Your task to perform on an android device: Clear the shopping cart on target. Add razer kraken to the cart on target, then select checkout. Image 0: 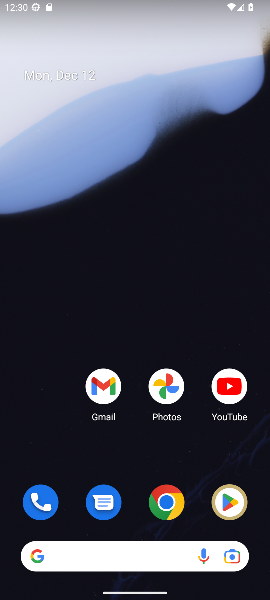
Step 0: click (172, 515)
Your task to perform on an android device: Clear the shopping cart on target. Add razer kraken to the cart on target, then select checkout. Image 1: 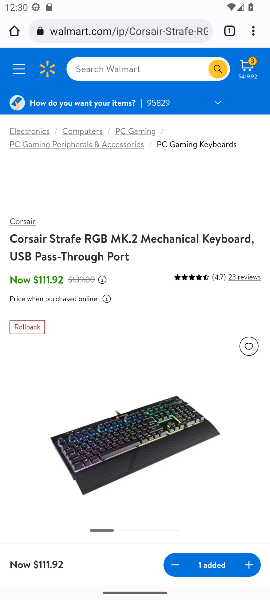
Step 1: click (150, 40)
Your task to perform on an android device: Clear the shopping cart on target. Add razer kraken to the cart on target, then select checkout. Image 2: 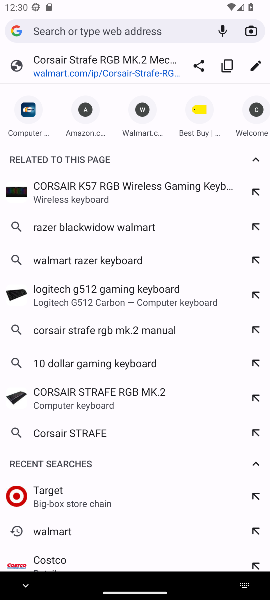
Step 2: type "target"
Your task to perform on an android device: Clear the shopping cart on target. Add razer kraken to the cart on target, then select checkout. Image 3: 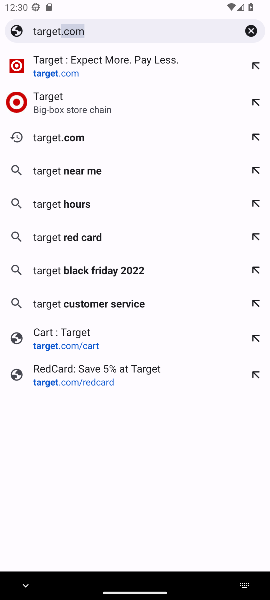
Step 3: click (152, 71)
Your task to perform on an android device: Clear the shopping cart on target. Add razer kraken to the cart on target, then select checkout. Image 4: 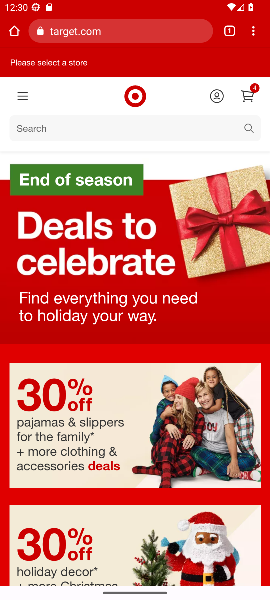
Step 4: click (163, 136)
Your task to perform on an android device: Clear the shopping cart on target. Add razer kraken to the cart on target, then select checkout. Image 5: 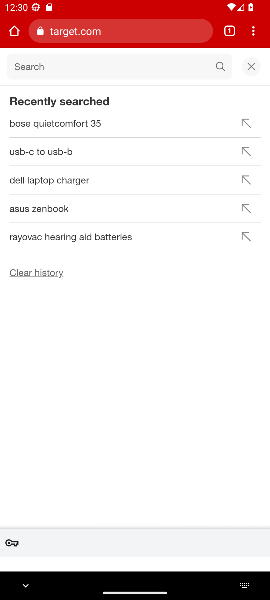
Step 5: type "razer karken"
Your task to perform on an android device: Clear the shopping cart on target. Add razer kraken to the cart on target, then select checkout. Image 6: 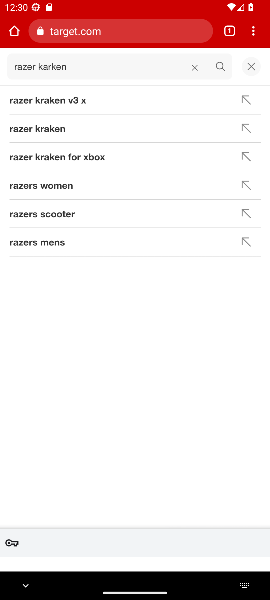
Step 6: click (214, 66)
Your task to perform on an android device: Clear the shopping cart on target. Add razer kraken to the cart on target, then select checkout. Image 7: 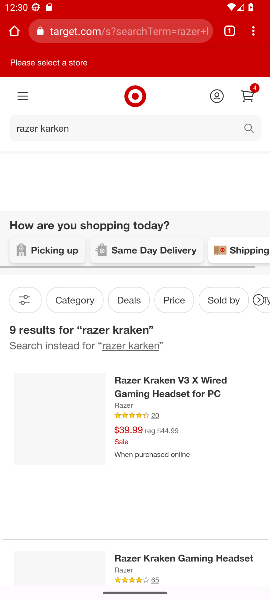
Step 7: click (212, 415)
Your task to perform on an android device: Clear the shopping cart on target. Add razer kraken to the cart on target, then select checkout. Image 8: 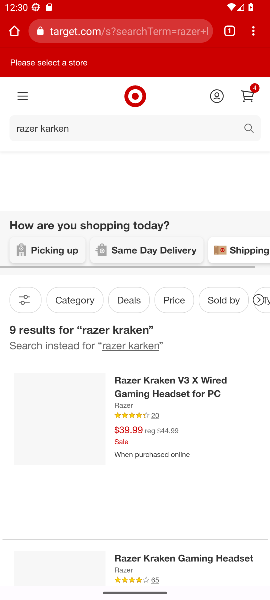
Step 8: click (212, 415)
Your task to perform on an android device: Clear the shopping cart on target. Add razer kraken to the cart on target, then select checkout. Image 9: 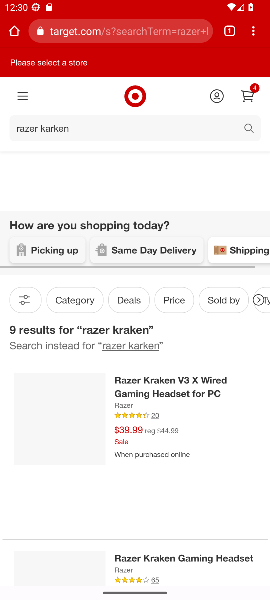
Step 9: click (185, 404)
Your task to perform on an android device: Clear the shopping cart on target. Add razer kraken to the cart on target, then select checkout. Image 10: 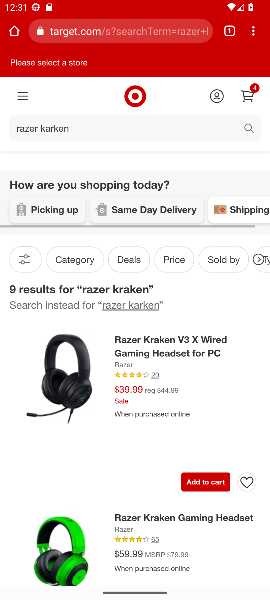
Step 10: click (193, 480)
Your task to perform on an android device: Clear the shopping cart on target. Add razer kraken to the cart on target, then select checkout. Image 11: 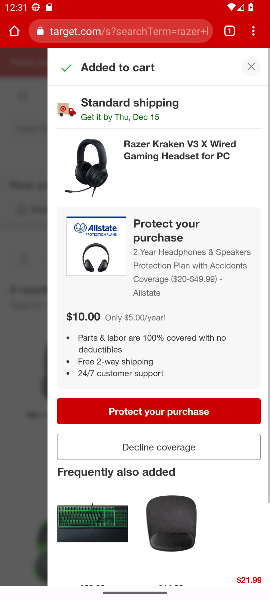
Step 11: task complete